Your task to perform on an android device: toggle notifications settings in the gmail app Image 0: 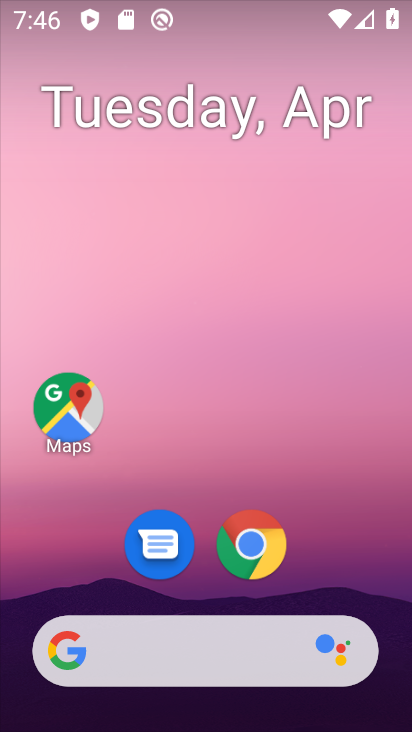
Step 0: drag from (272, 648) to (300, 55)
Your task to perform on an android device: toggle notifications settings in the gmail app Image 1: 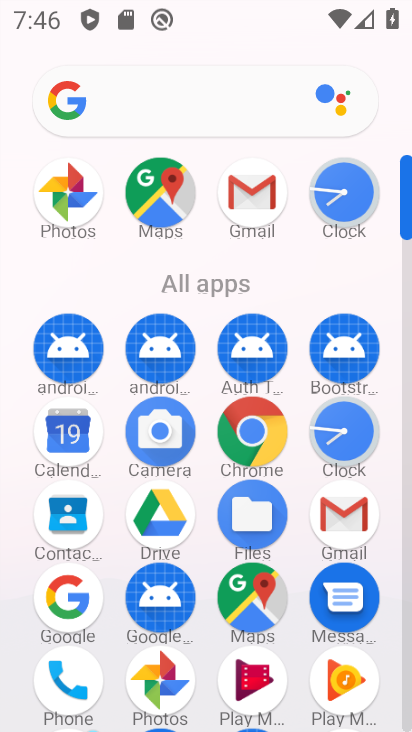
Step 1: click (351, 521)
Your task to perform on an android device: toggle notifications settings in the gmail app Image 2: 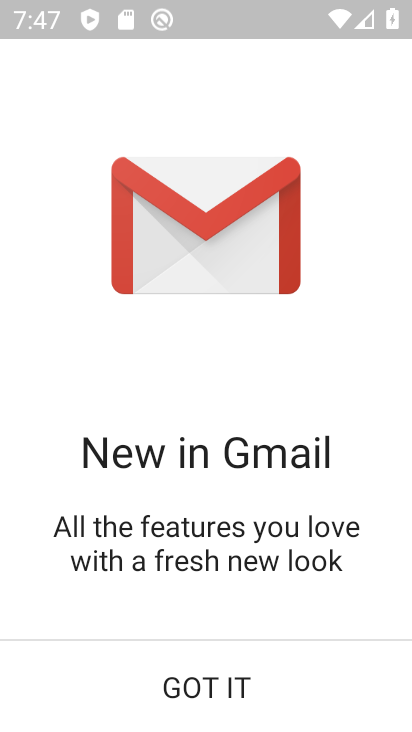
Step 2: click (105, 704)
Your task to perform on an android device: toggle notifications settings in the gmail app Image 3: 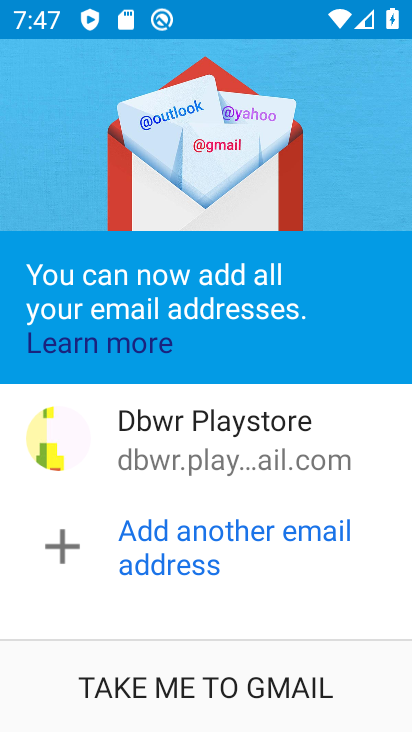
Step 3: click (240, 687)
Your task to perform on an android device: toggle notifications settings in the gmail app Image 4: 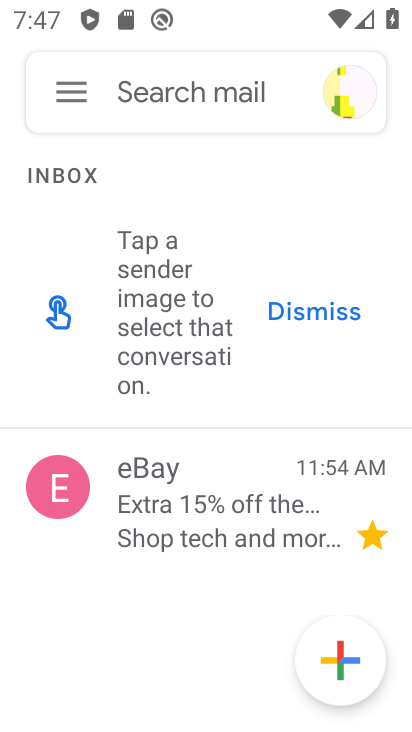
Step 4: click (69, 124)
Your task to perform on an android device: toggle notifications settings in the gmail app Image 5: 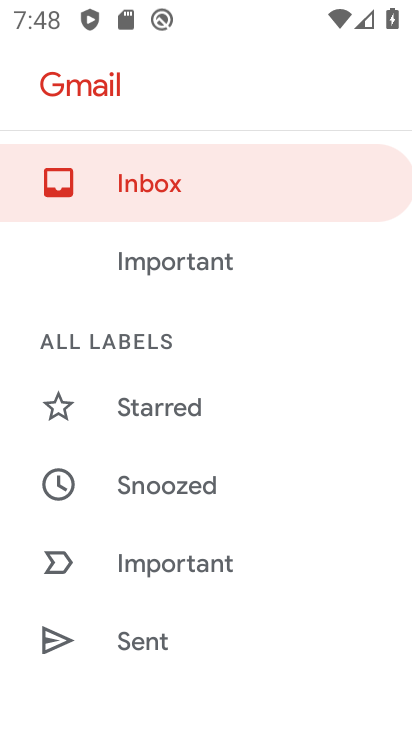
Step 5: drag from (181, 417) to (214, 88)
Your task to perform on an android device: toggle notifications settings in the gmail app Image 6: 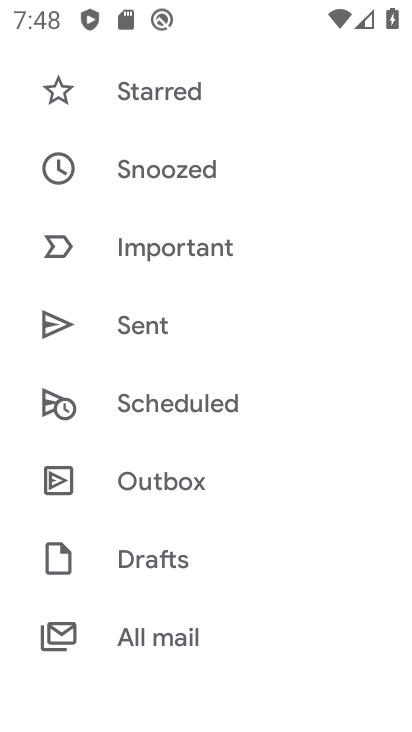
Step 6: drag from (224, 503) to (244, 2)
Your task to perform on an android device: toggle notifications settings in the gmail app Image 7: 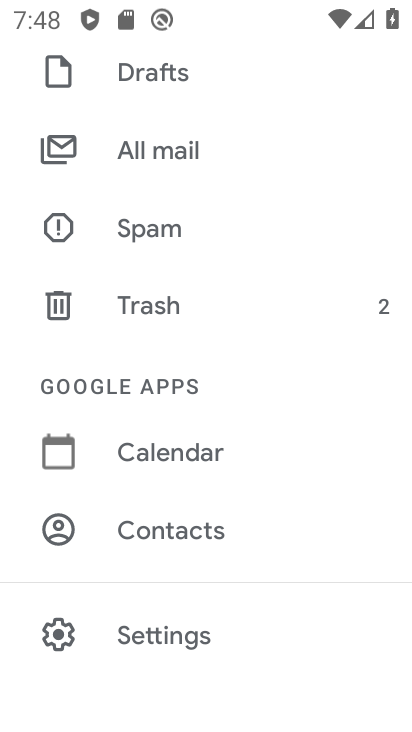
Step 7: click (221, 656)
Your task to perform on an android device: toggle notifications settings in the gmail app Image 8: 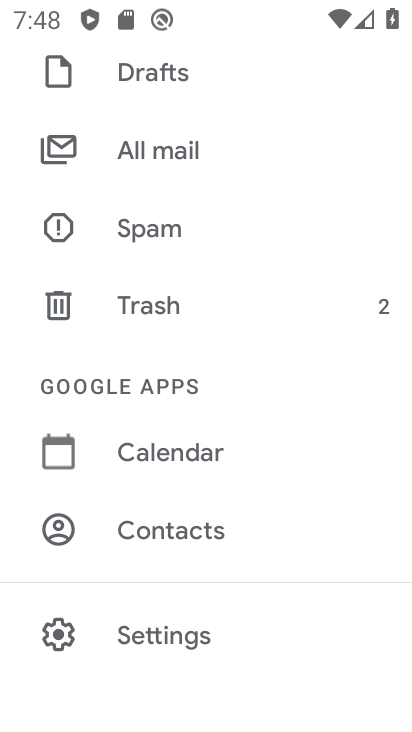
Step 8: click (177, 636)
Your task to perform on an android device: toggle notifications settings in the gmail app Image 9: 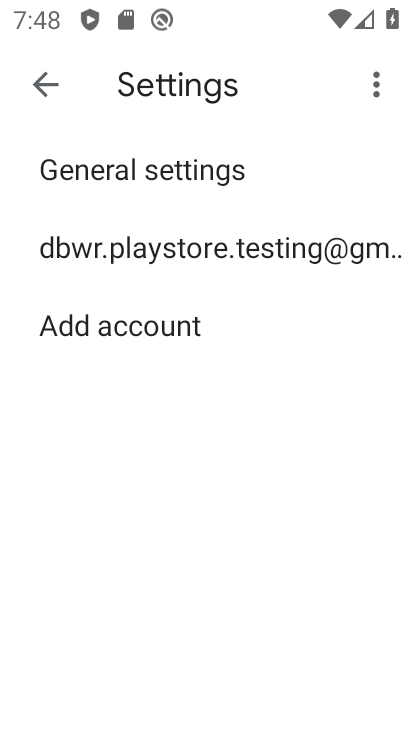
Step 9: click (233, 254)
Your task to perform on an android device: toggle notifications settings in the gmail app Image 10: 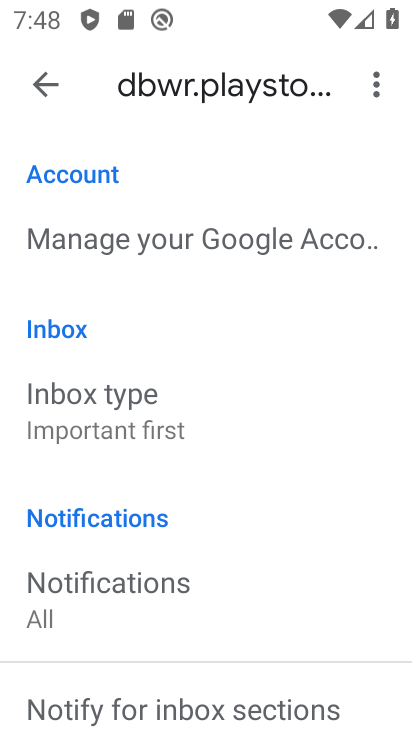
Step 10: click (48, 85)
Your task to perform on an android device: toggle notifications settings in the gmail app Image 11: 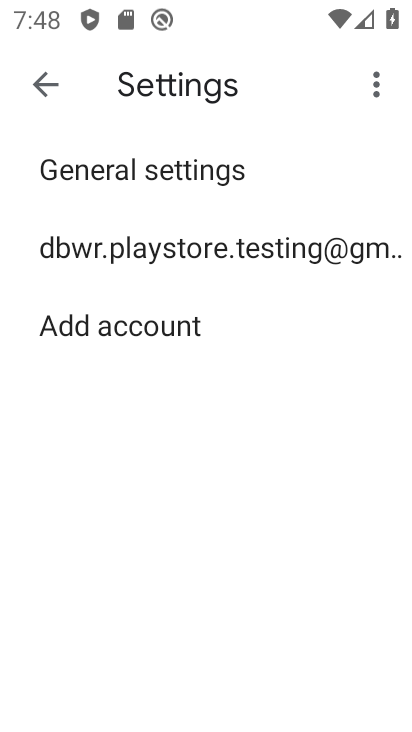
Step 11: click (119, 164)
Your task to perform on an android device: toggle notifications settings in the gmail app Image 12: 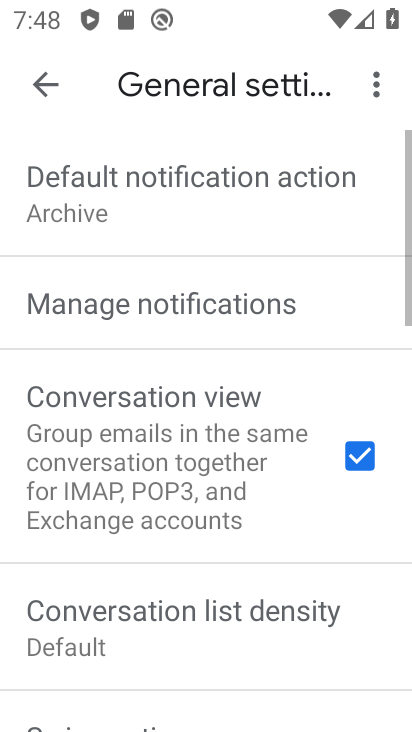
Step 12: click (168, 304)
Your task to perform on an android device: toggle notifications settings in the gmail app Image 13: 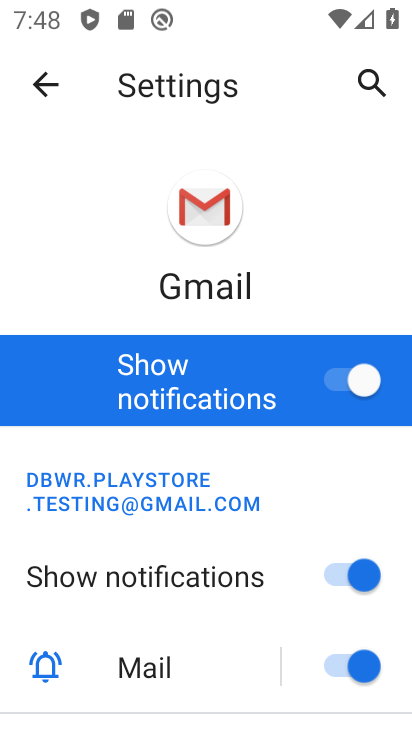
Step 13: click (339, 379)
Your task to perform on an android device: toggle notifications settings in the gmail app Image 14: 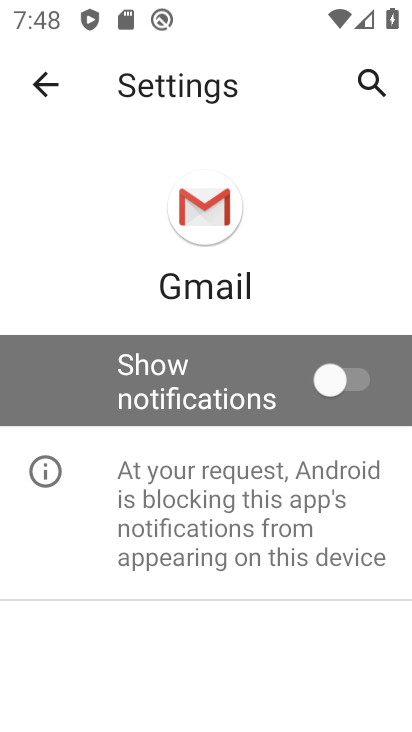
Step 14: task complete